Your task to perform on an android device: turn on translation in the chrome app Image 0: 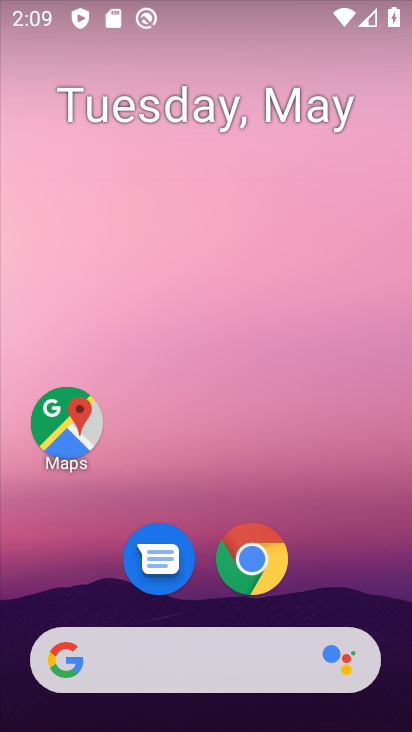
Step 0: click (252, 560)
Your task to perform on an android device: turn on translation in the chrome app Image 1: 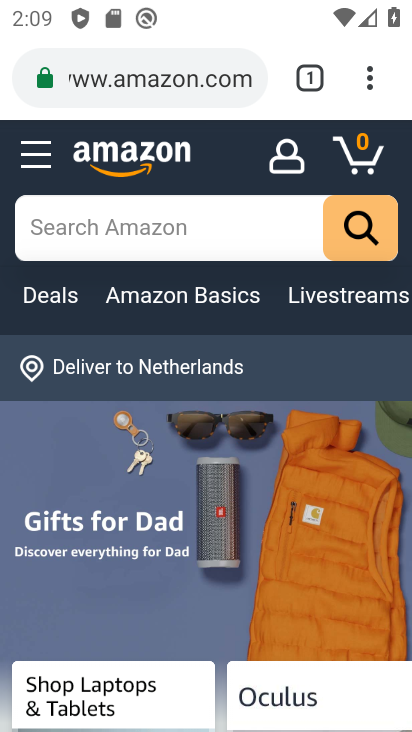
Step 1: click (371, 74)
Your task to perform on an android device: turn on translation in the chrome app Image 2: 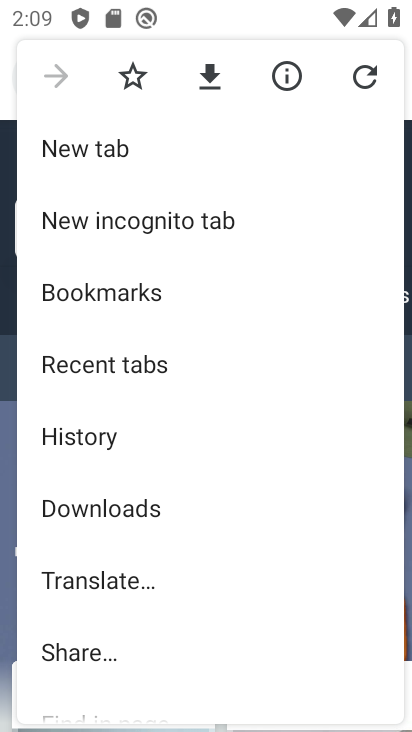
Step 2: drag from (174, 564) to (216, 466)
Your task to perform on an android device: turn on translation in the chrome app Image 3: 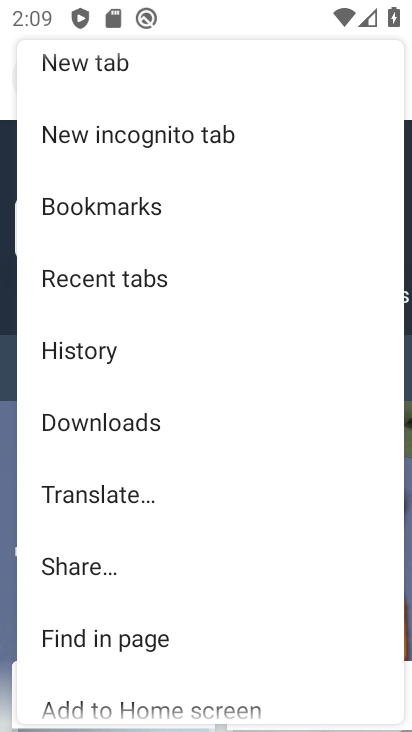
Step 3: drag from (209, 510) to (236, 478)
Your task to perform on an android device: turn on translation in the chrome app Image 4: 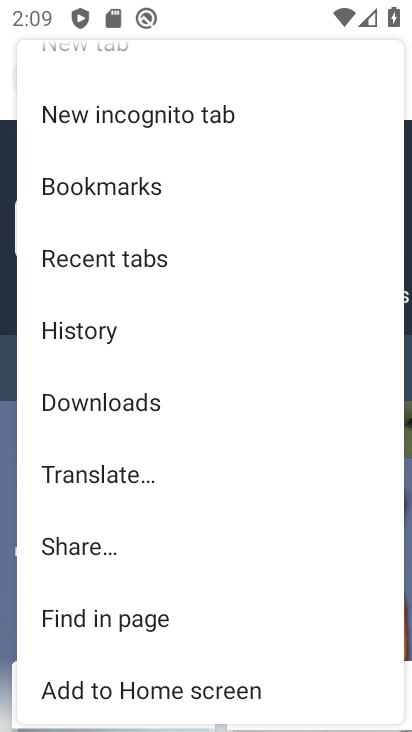
Step 4: drag from (192, 638) to (224, 527)
Your task to perform on an android device: turn on translation in the chrome app Image 5: 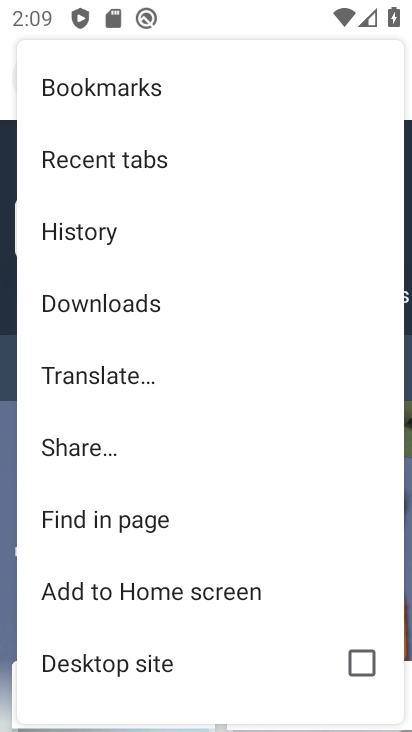
Step 5: drag from (199, 607) to (246, 526)
Your task to perform on an android device: turn on translation in the chrome app Image 6: 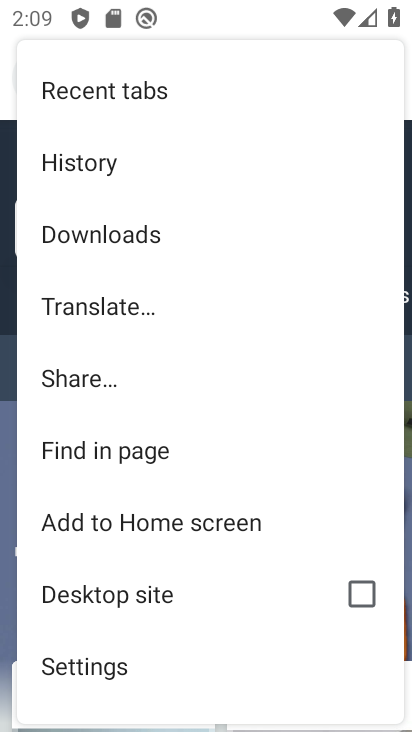
Step 6: click (80, 671)
Your task to perform on an android device: turn on translation in the chrome app Image 7: 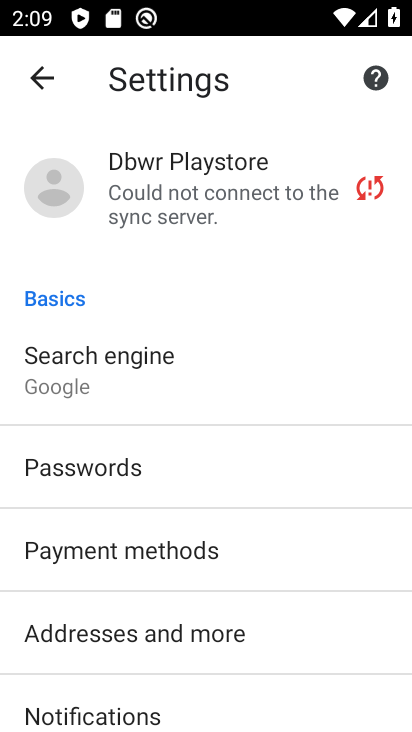
Step 7: drag from (195, 683) to (302, 549)
Your task to perform on an android device: turn on translation in the chrome app Image 8: 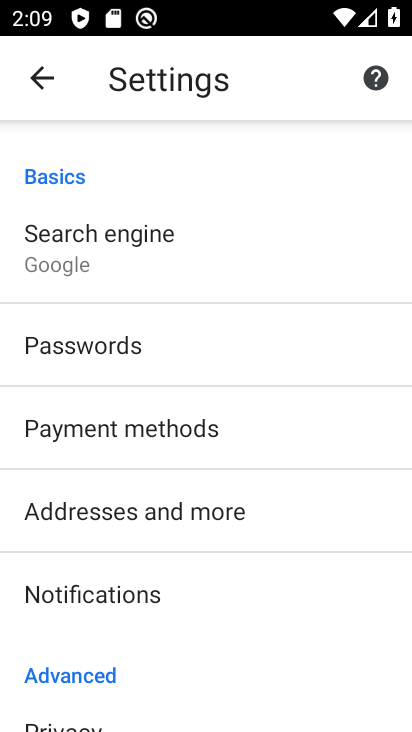
Step 8: drag from (166, 663) to (250, 235)
Your task to perform on an android device: turn on translation in the chrome app Image 9: 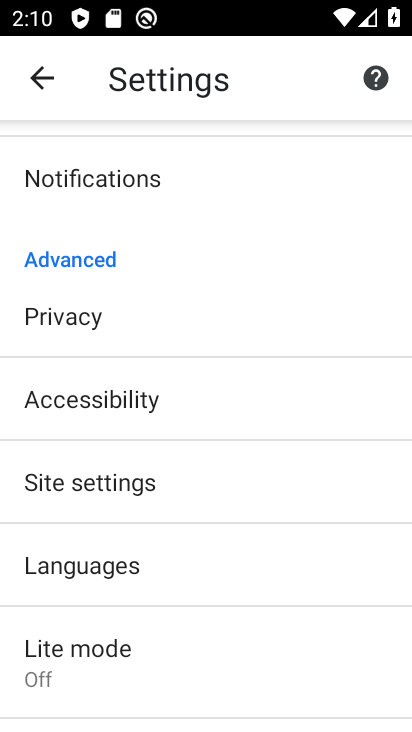
Step 9: click (89, 566)
Your task to perform on an android device: turn on translation in the chrome app Image 10: 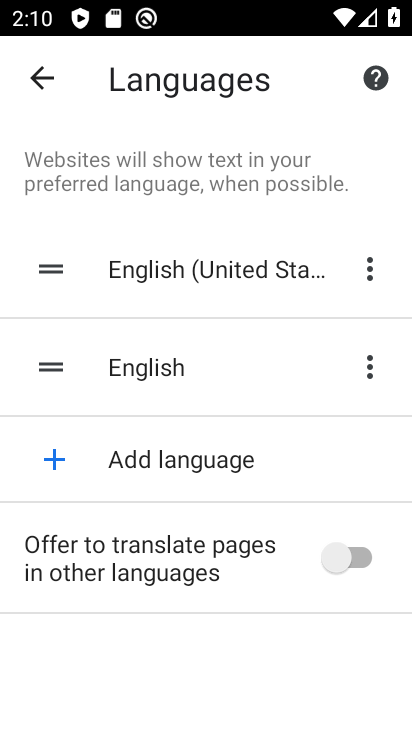
Step 10: click (354, 554)
Your task to perform on an android device: turn on translation in the chrome app Image 11: 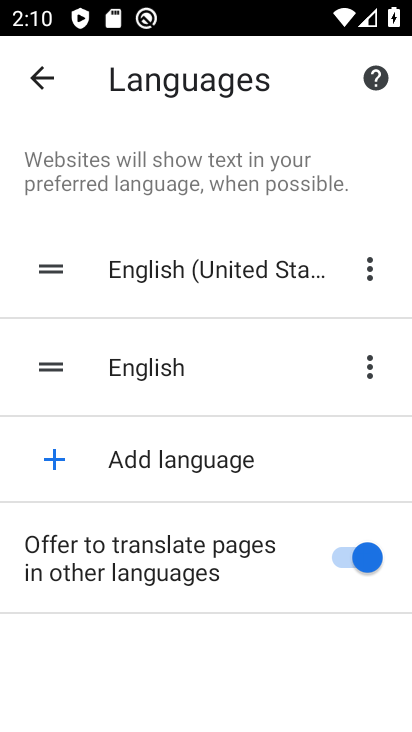
Step 11: task complete